Your task to perform on an android device: Open Maps and search for coffee Image 0: 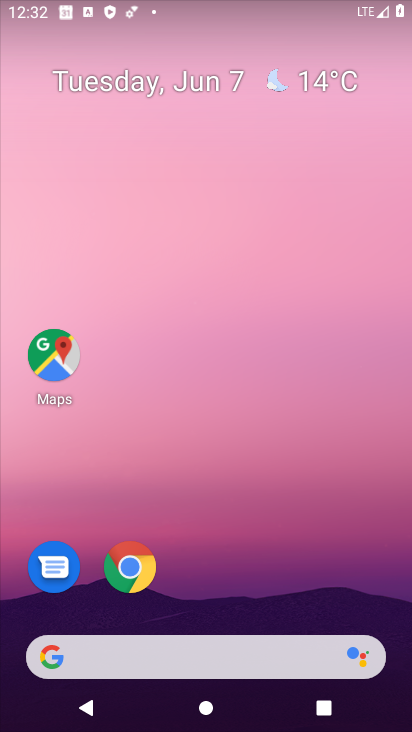
Step 0: drag from (288, 650) to (294, 149)
Your task to perform on an android device: Open Maps and search for coffee Image 1: 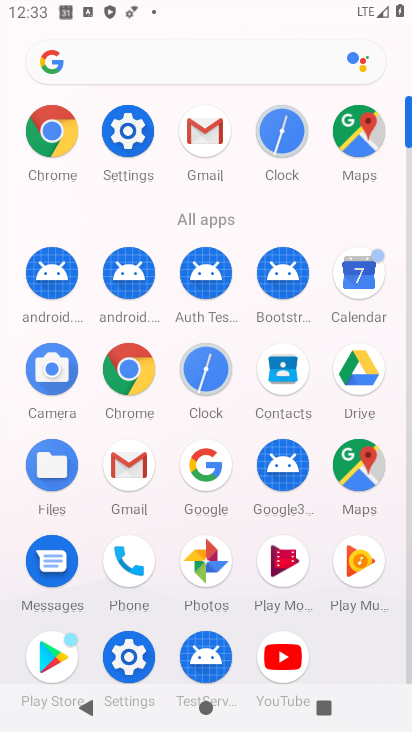
Step 1: click (353, 455)
Your task to perform on an android device: Open Maps and search for coffee Image 2: 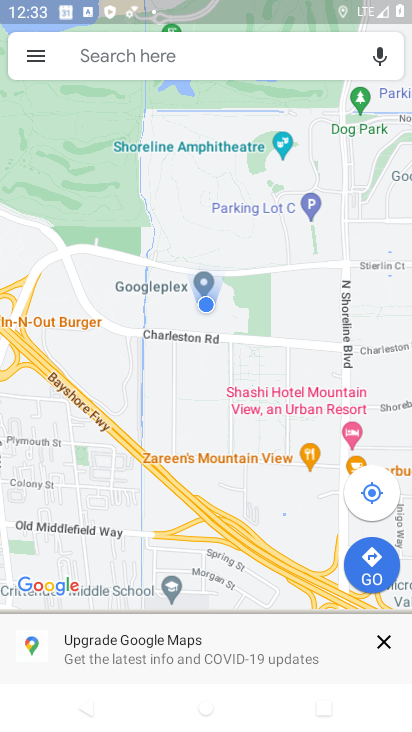
Step 2: click (90, 46)
Your task to perform on an android device: Open Maps and search for coffee Image 3: 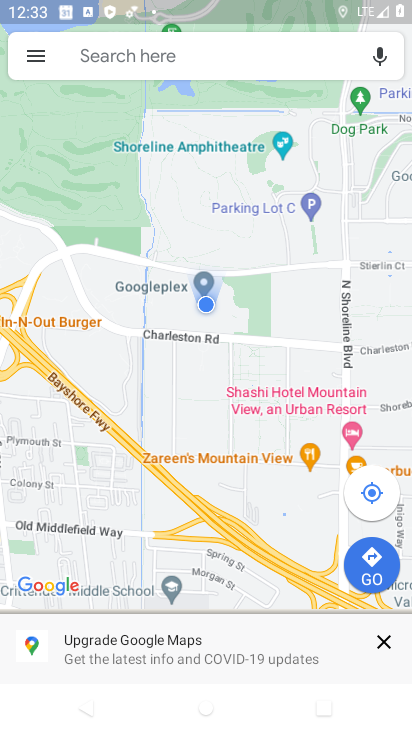
Step 3: click (90, 46)
Your task to perform on an android device: Open Maps and search for coffee Image 4: 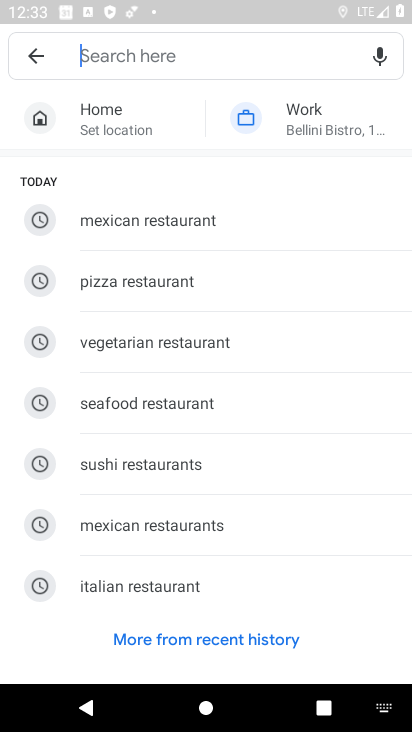
Step 4: type "coffee"
Your task to perform on an android device: Open Maps and search for coffee Image 5: 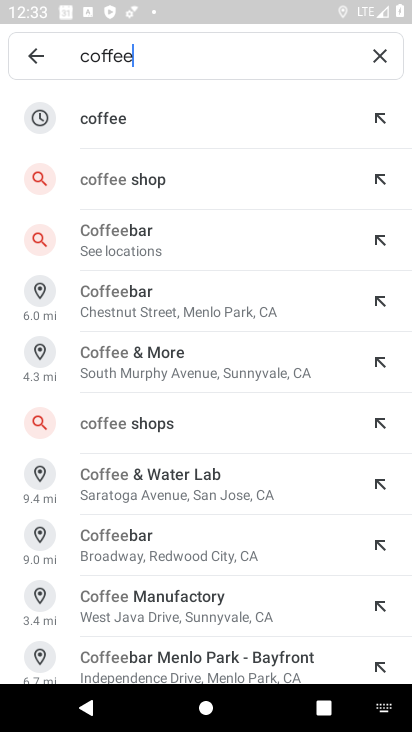
Step 5: click (126, 125)
Your task to perform on an android device: Open Maps and search for coffee Image 6: 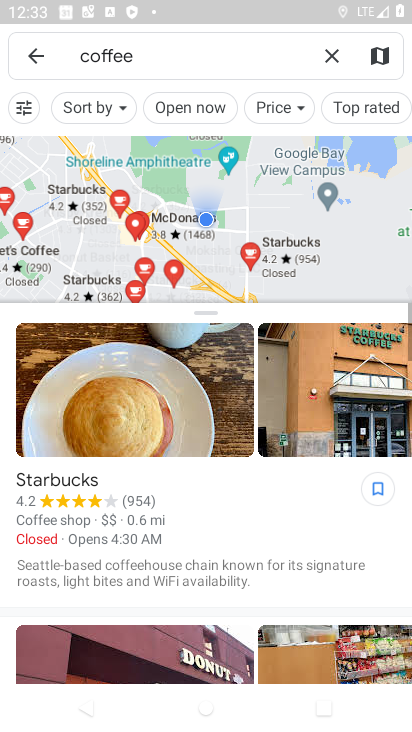
Step 6: task complete